Your task to perform on an android device: toggle translation in the chrome app Image 0: 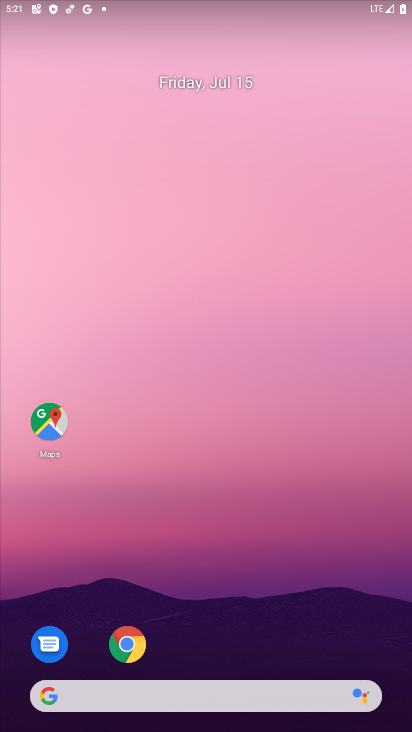
Step 0: click (133, 651)
Your task to perform on an android device: toggle translation in the chrome app Image 1: 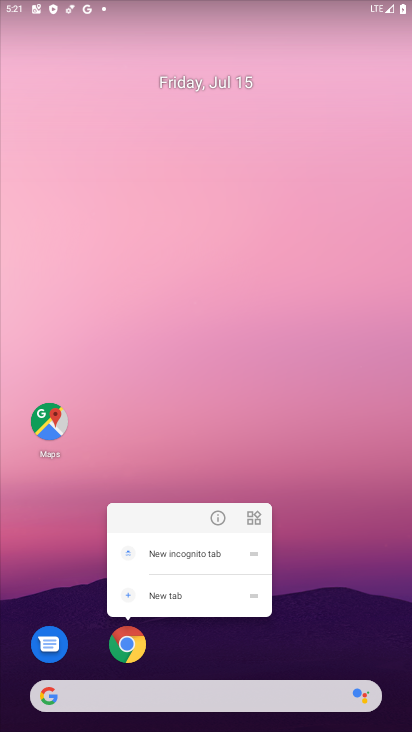
Step 1: click (131, 645)
Your task to perform on an android device: toggle translation in the chrome app Image 2: 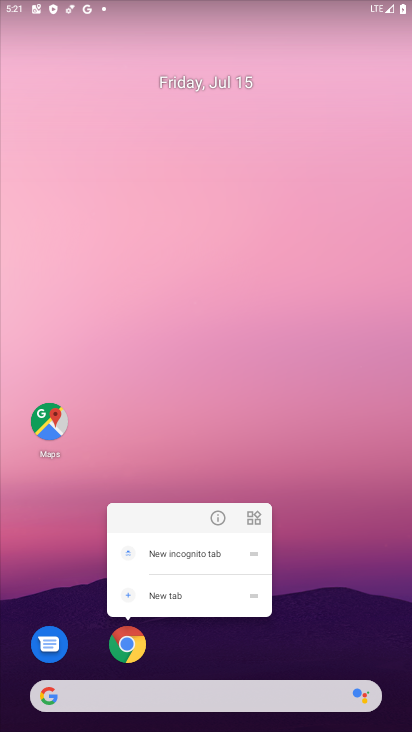
Step 2: click (121, 636)
Your task to perform on an android device: toggle translation in the chrome app Image 3: 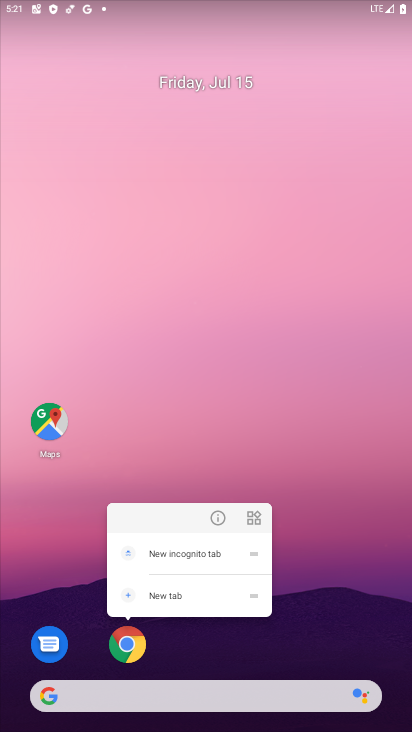
Step 3: click (127, 644)
Your task to perform on an android device: toggle translation in the chrome app Image 4: 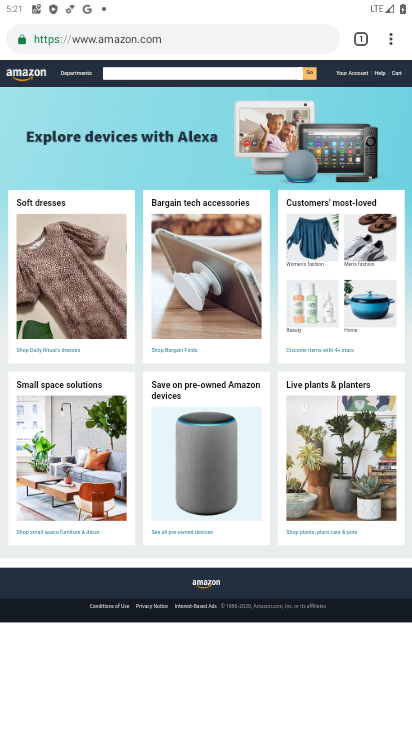
Step 4: press back button
Your task to perform on an android device: toggle translation in the chrome app Image 5: 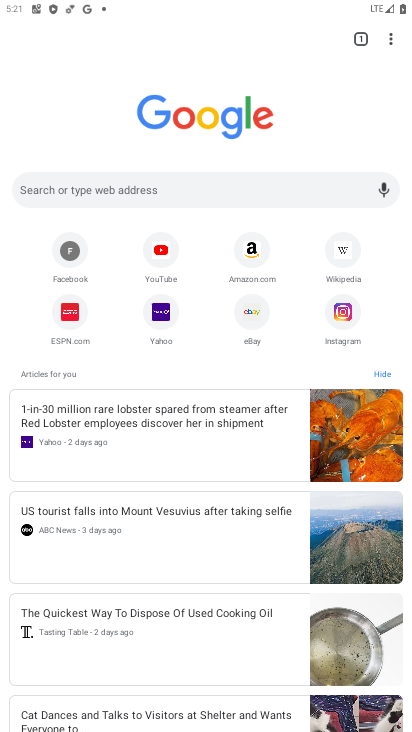
Step 5: click (392, 34)
Your task to perform on an android device: toggle translation in the chrome app Image 6: 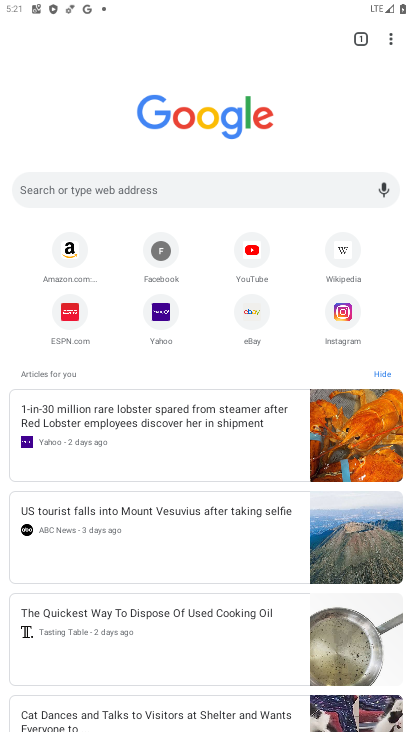
Step 6: click (388, 33)
Your task to perform on an android device: toggle translation in the chrome app Image 7: 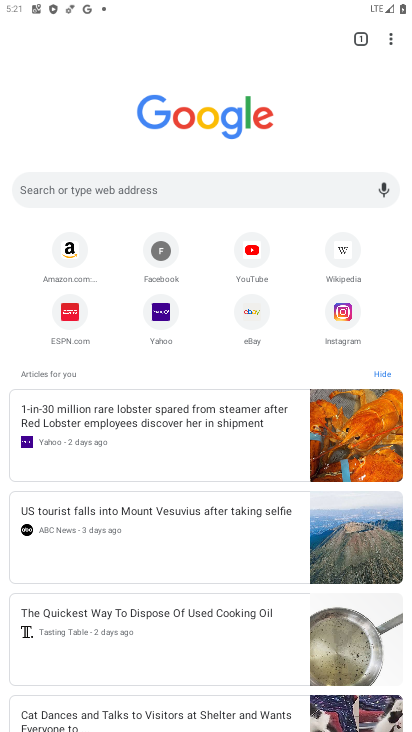
Step 7: click (388, 33)
Your task to perform on an android device: toggle translation in the chrome app Image 8: 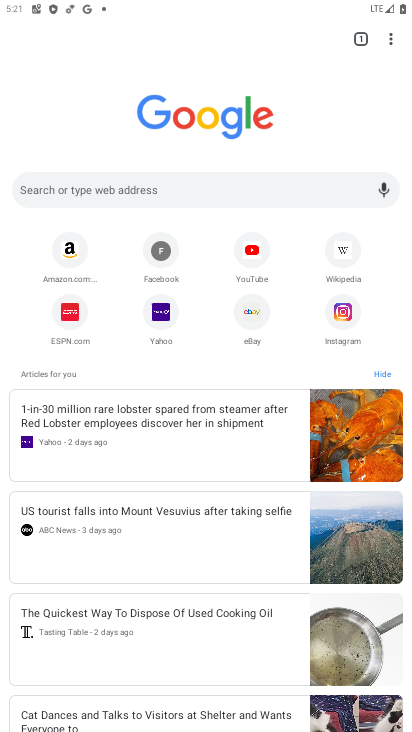
Step 8: click (388, 44)
Your task to perform on an android device: toggle translation in the chrome app Image 9: 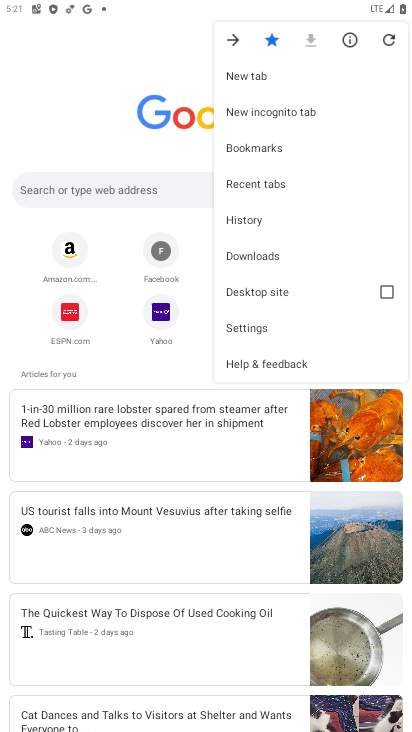
Step 9: click (253, 330)
Your task to perform on an android device: toggle translation in the chrome app Image 10: 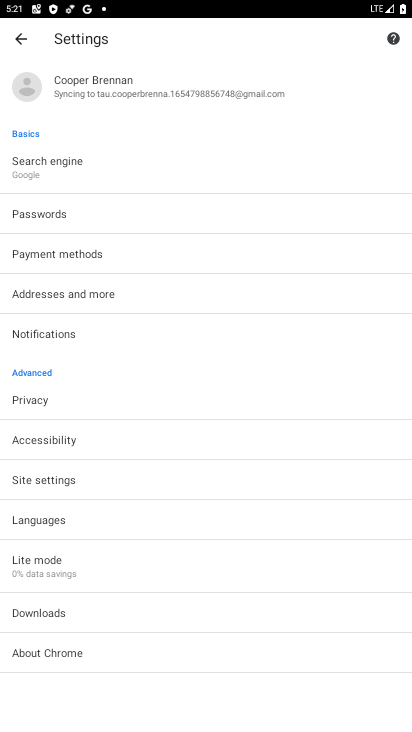
Step 10: click (84, 510)
Your task to perform on an android device: toggle translation in the chrome app Image 11: 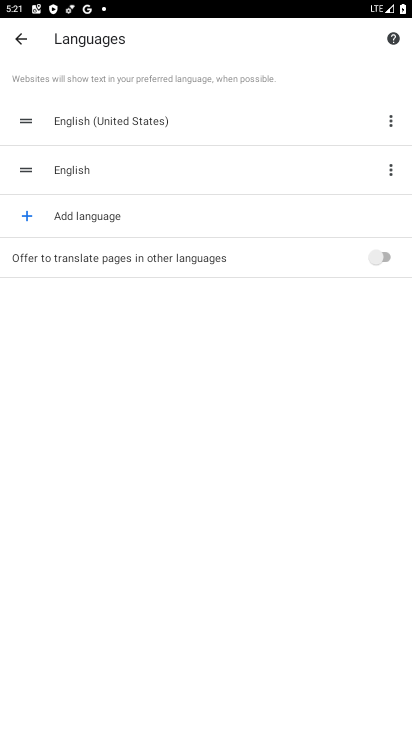
Step 11: click (377, 259)
Your task to perform on an android device: toggle translation in the chrome app Image 12: 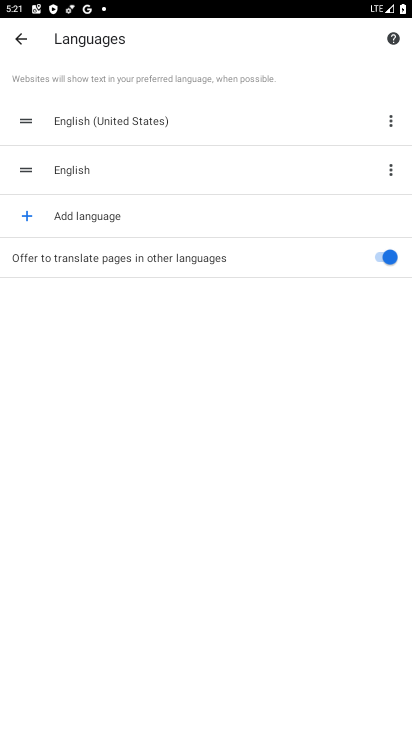
Step 12: task complete